Your task to perform on an android device: find snoozed emails in the gmail app Image 0: 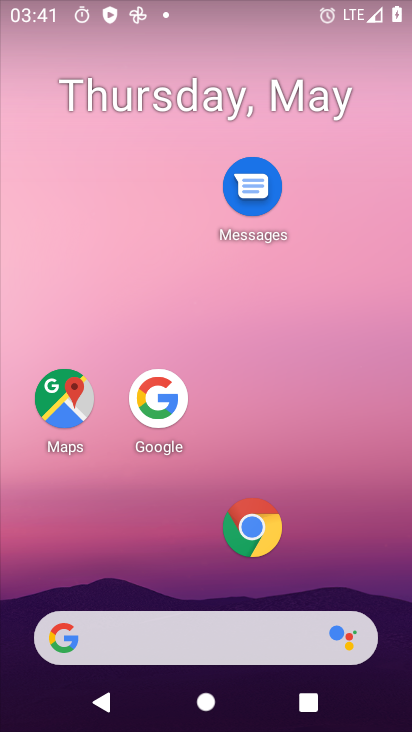
Step 0: click (319, 56)
Your task to perform on an android device: find snoozed emails in the gmail app Image 1: 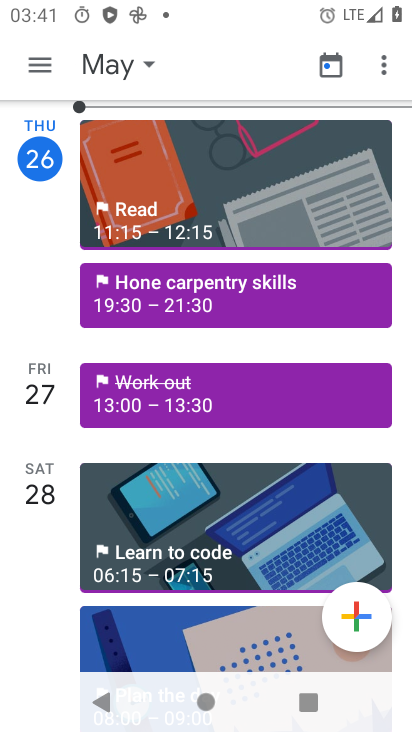
Step 1: press home button
Your task to perform on an android device: find snoozed emails in the gmail app Image 2: 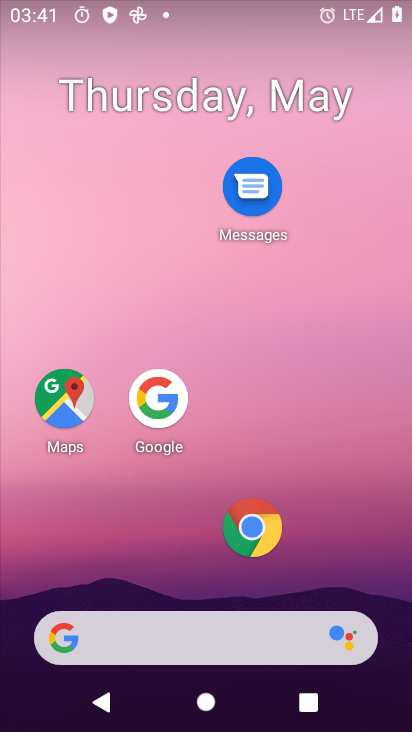
Step 2: drag from (214, 533) to (241, 153)
Your task to perform on an android device: find snoozed emails in the gmail app Image 3: 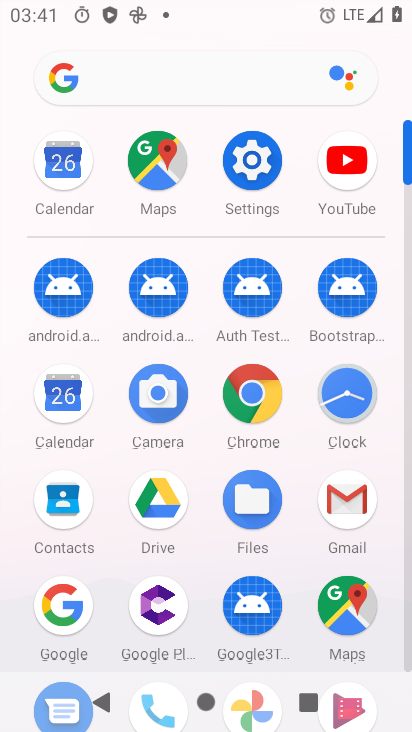
Step 3: click (340, 503)
Your task to perform on an android device: find snoozed emails in the gmail app Image 4: 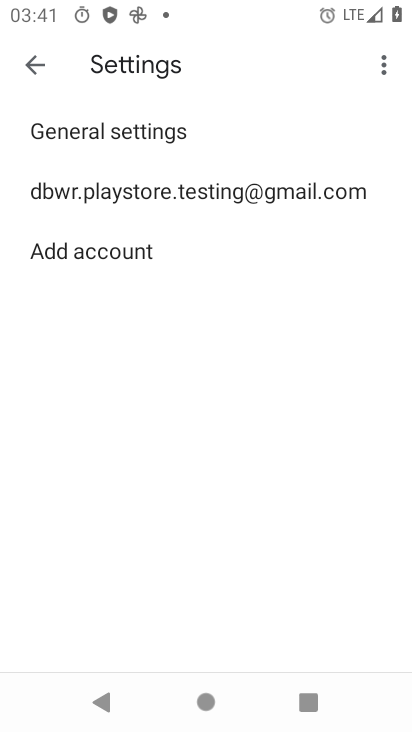
Step 4: click (27, 71)
Your task to perform on an android device: find snoozed emails in the gmail app Image 5: 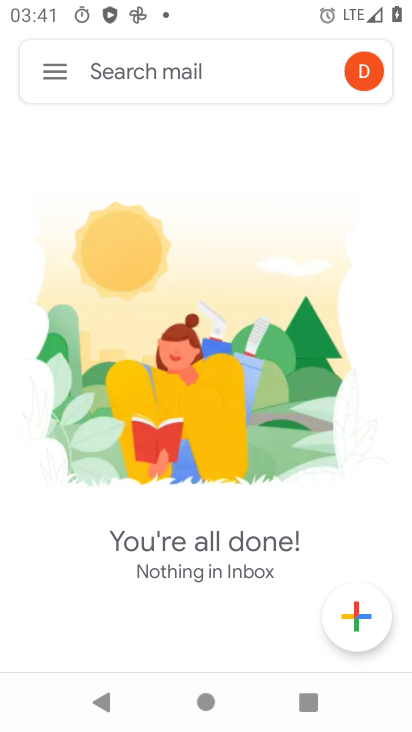
Step 5: click (69, 79)
Your task to perform on an android device: find snoozed emails in the gmail app Image 6: 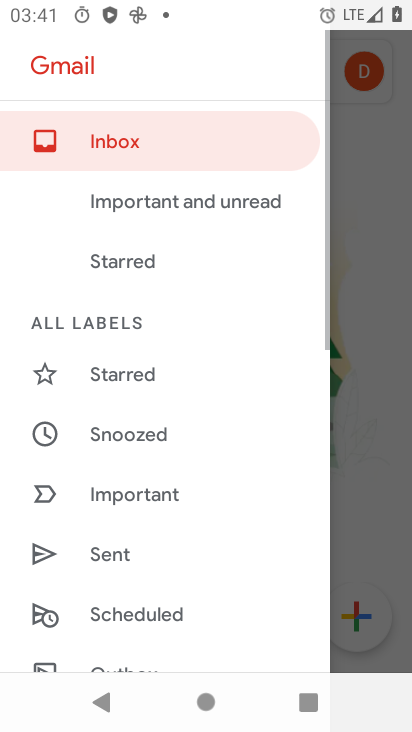
Step 6: click (123, 429)
Your task to perform on an android device: find snoozed emails in the gmail app Image 7: 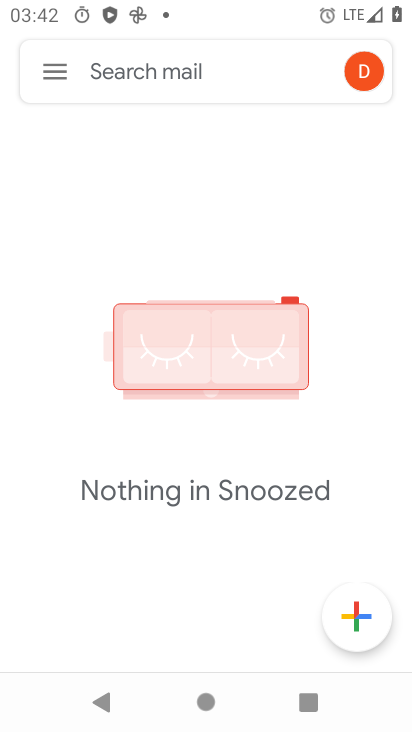
Step 7: drag from (233, 526) to (239, 198)
Your task to perform on an android device: find snoozed emails in the gmail app Image 8: 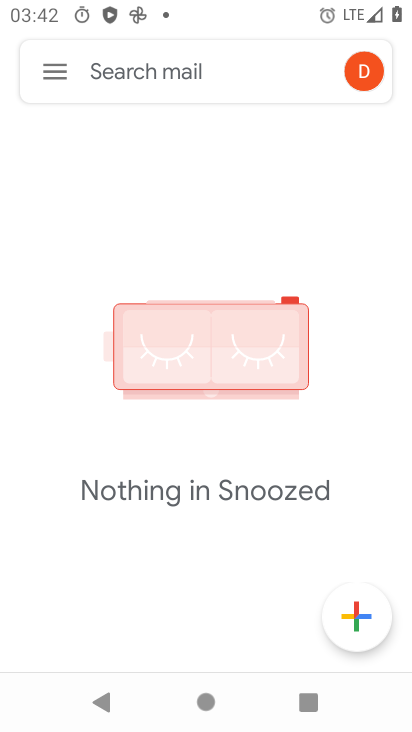
Step 8: drag from (225, 510) to (230, 307)
Your task to perform on an android device: find snoozed emails in the gmail app Image 9: 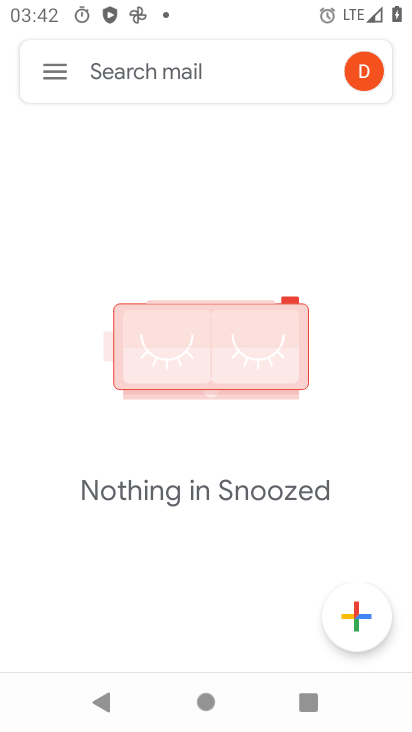
Step 9: click (63, 81)
Your task to perform on an android device: find snoozed emails in the gmail app Image 10: 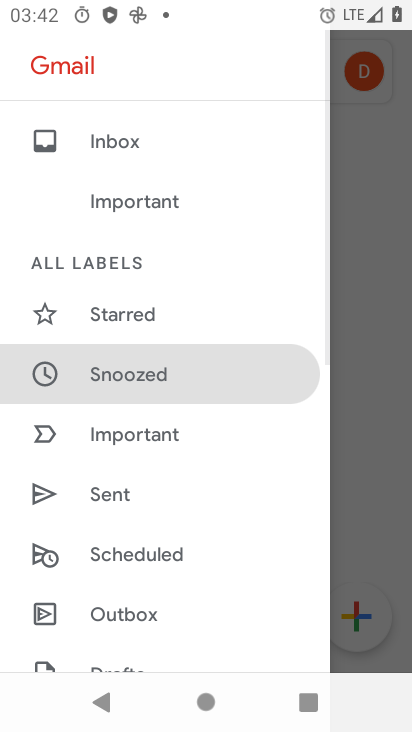
Step 10: click (115, 384)
Your task to perform on an android device: find snoozed emails in the gmail app Image 11: 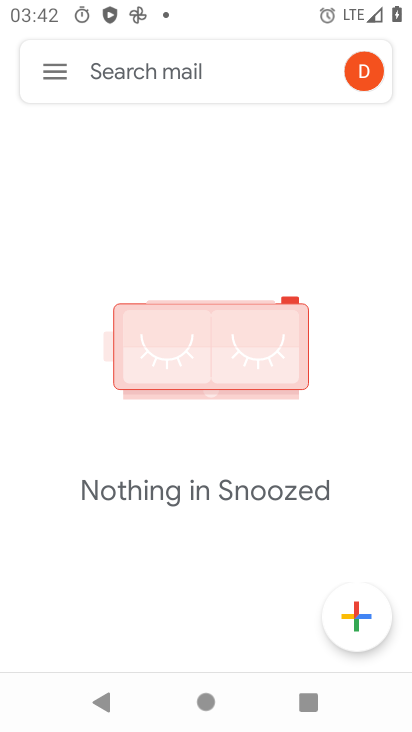
Step 11: task complete